Your task to perform on an android device: open app "Google Duo" (install if not already installed) Image 0: 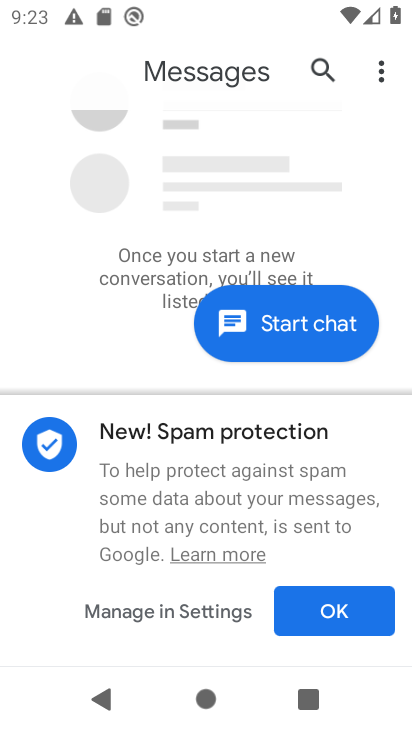
Step 0: press home button
Your task to perform on an android device: open app "Google Duo" (install if not already installed) Image 1: 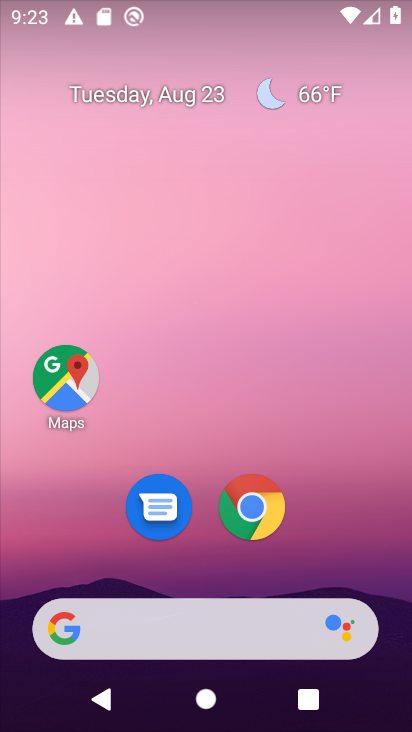
Step 1: drag from (391, 619) to (336, 60)
Your task to perform on an android device: open app "Google Duo" (install if not already installed) Image 2: 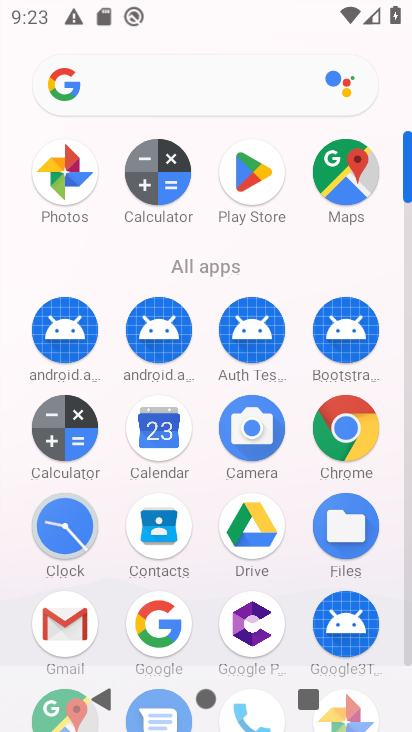
Step 2: click (409, 637)
Your task to perform on an android device: open app "Google Duo" (install if not already installed) Image 3: 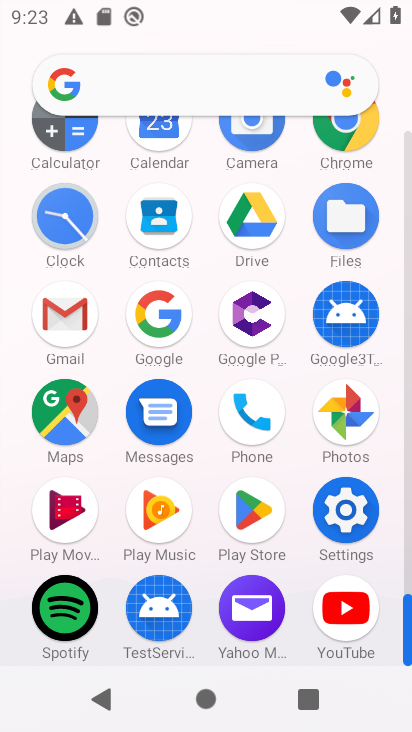
Step 3: click (253, 510)
Your task to perform on an android device: open app "Google Duo" (install if not already installed) Image 4: 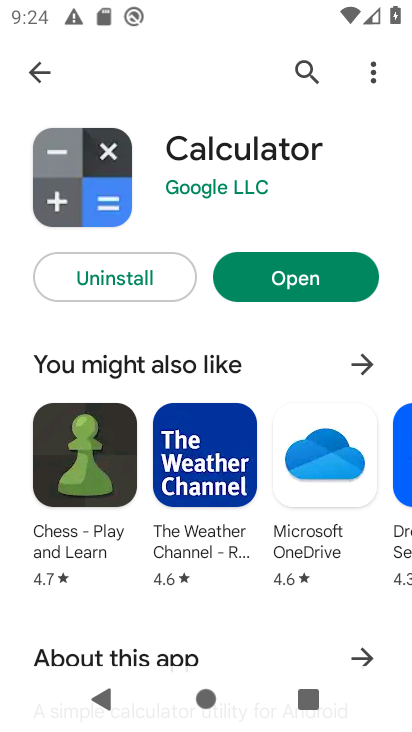
Step 4: click (302, 63)
Your task to perform on an android device: open app "Google Duo" (install if not already installed) Image 5: 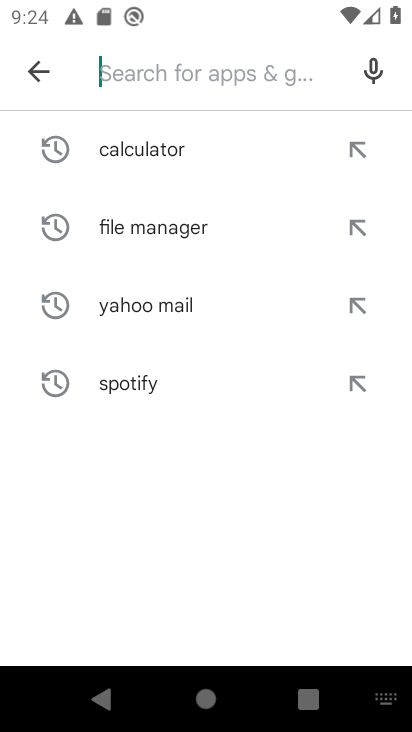
Step 5: type "Google Duo"
Your task to perform on an android device: open app "Google Duo" (install if not already installed) Image 6: 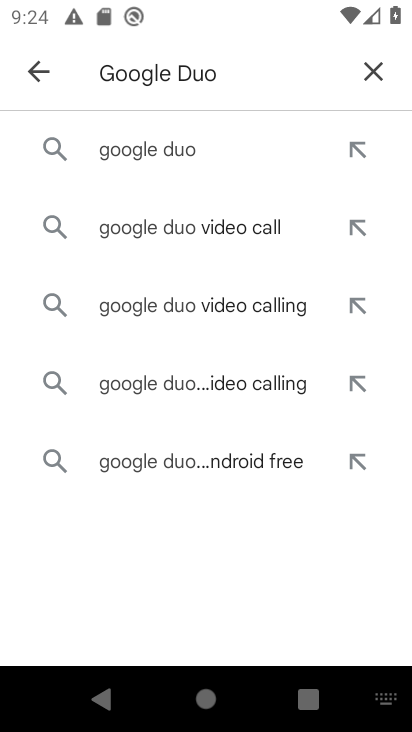
Step 6: click (141, 147)
Your task to perform on an android device: open app "Google Duo" (install if not already installed) Image 7: 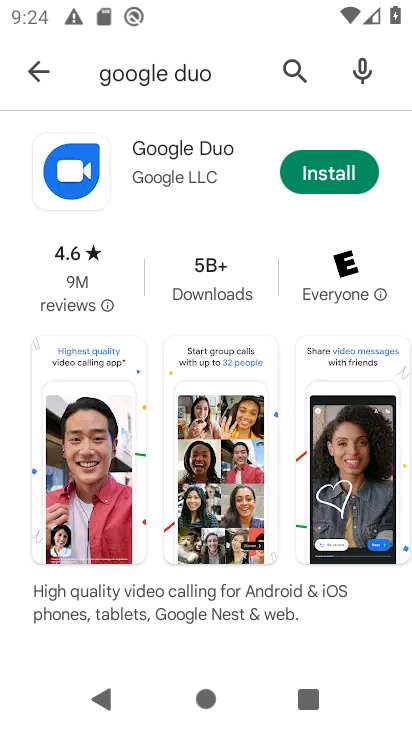
Step 7: click (321, 174)
Your task to perform on an android device: open app "Google Duo" (install if not already installed) Image 8: 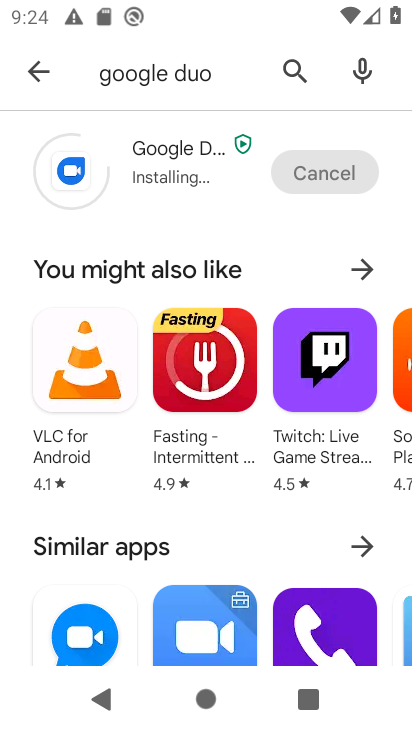
Step 8: click (149, 149)
Your task to perform on an android device: open app "Google Duo" (install if not already installed) Image 9: 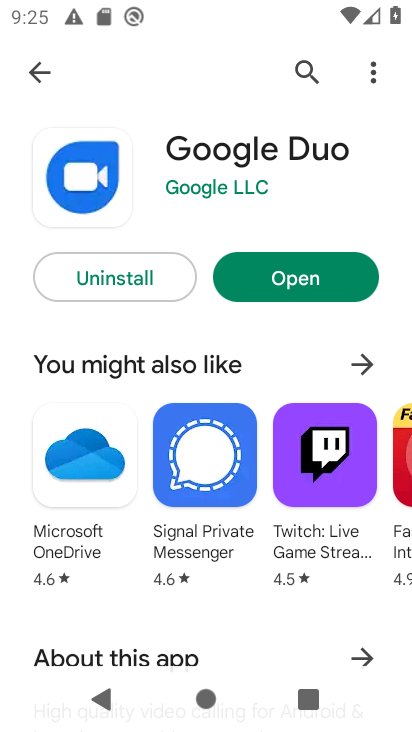
Step 9: click (292, 275)
Your task to perform on an android device: open app "Google Duo" (install if not already installed) Image 10: 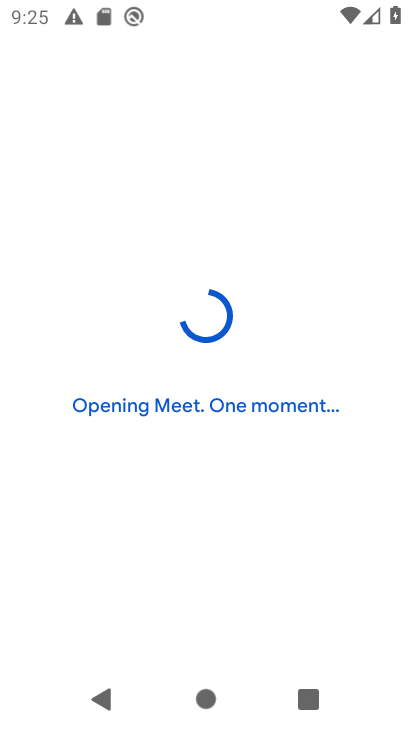
Step 10: task complete